Your task to perform on an android device: Open Youtube and go to "Your channel" Image 0: 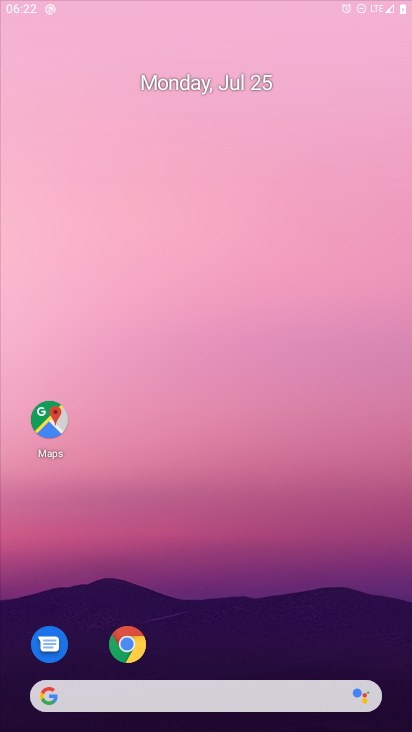
Step 0: press home button
Your task to perform on an android device: Open Youtube and go to "Your channel" Image 1: 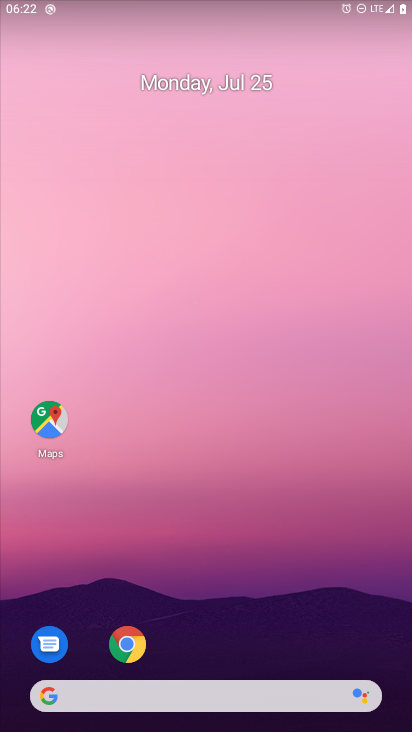
Step 1: drag from (250, 649) to (234, 179)
Your task to perform on an android device: Open Youtube and go to "Your channel" Image 2: 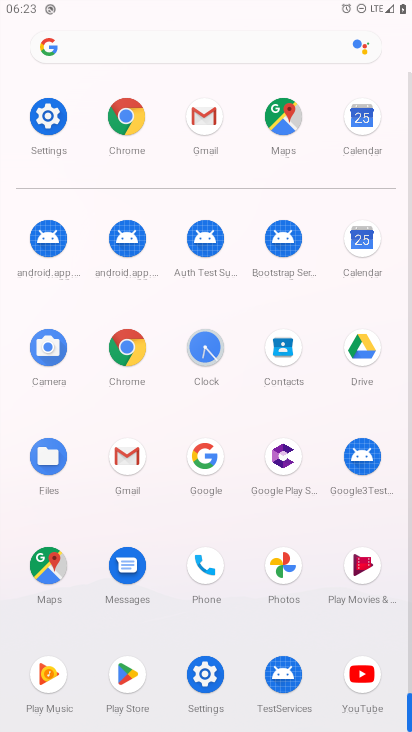
Step 2: click (372, 670)
Your task to perform on an android device: Open Youtube and go to "Your channel" Image 3: 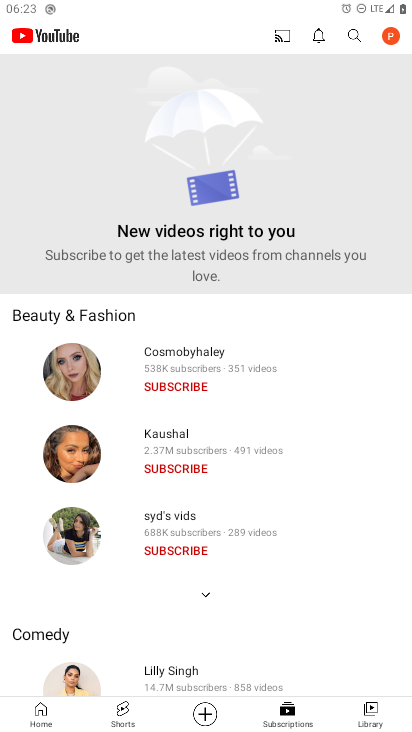
Step 3: click (389, 36)
Your task to perform on an android device: Open Youtube and go to "Your channel" Image 4: 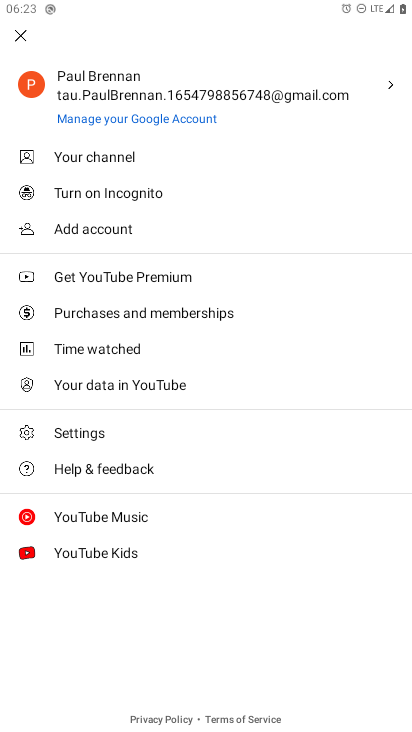
Step 4: click (105, 158)
Your task to perform on an android device: Open Youtube and go to "Your channel" Image 5: 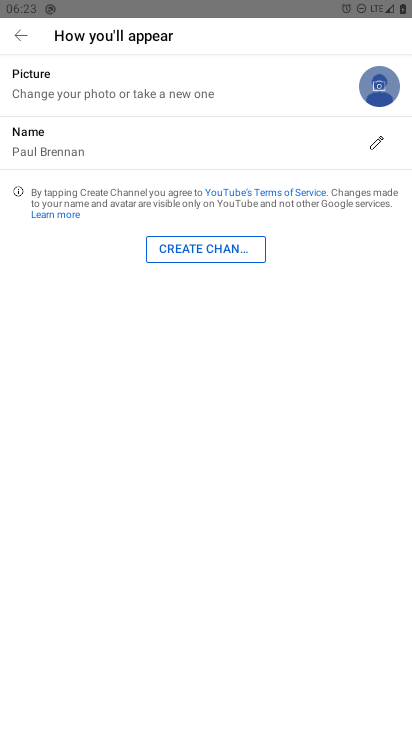
Step 5: task complete